Your task to perform on an android device: Go to settings Image 0: 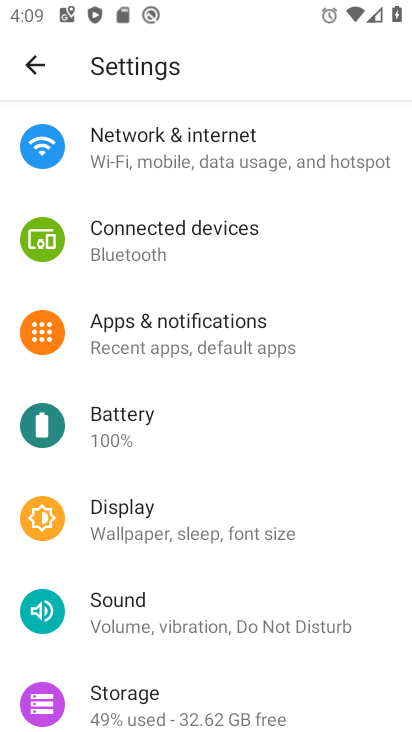
Step 0: click (302, 215)
Your task to perform on an android device: Go to settings Image 1: 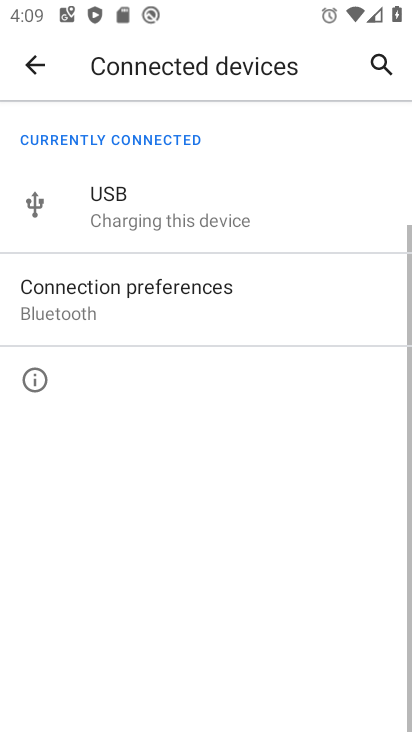
Step 1: task complete